Your task to perform on an android device: turn on bluetooth scan Image 0: 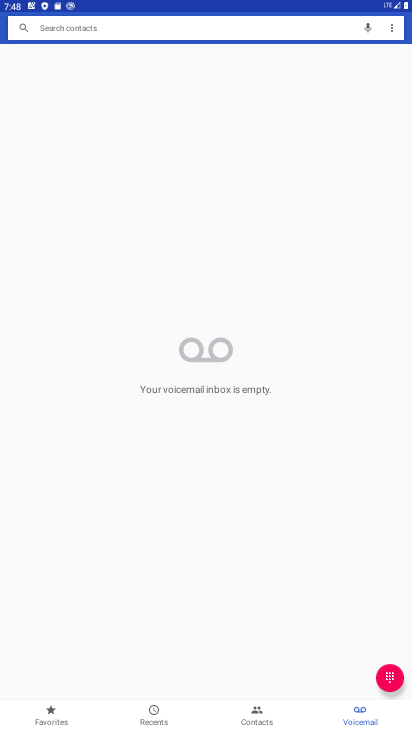
Step 0: press home button
Your task to perform on an android device: turn on bluetooth scan Image 1: 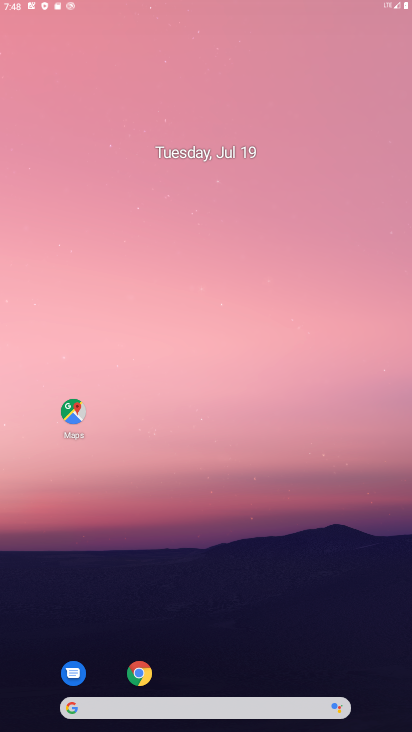
Step 1: drag from (394, 681) to (286, 61)
Your task to perform on an android device: turn on bluetooth scan Image 2: 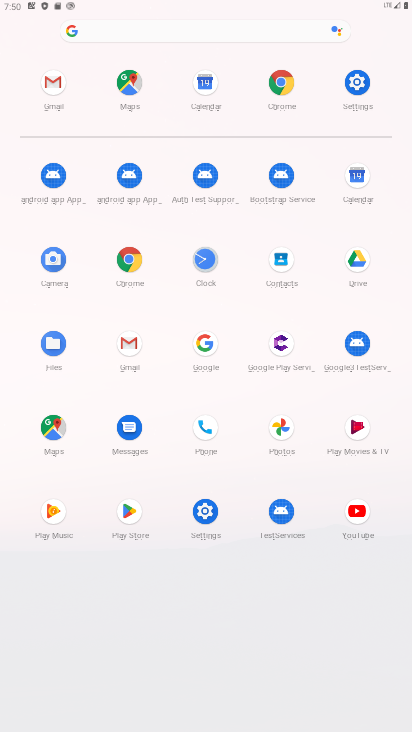
Step 2: click (203, 518)
Your task to perform on an android device: turn on bluetooth scan Image 3: 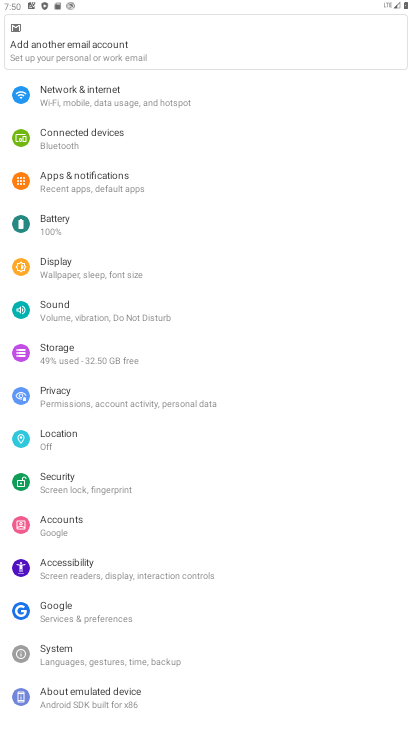
Step 3: click (68, 439)
Your task to perform on an android device: turn on bluetooth scan Image 4: 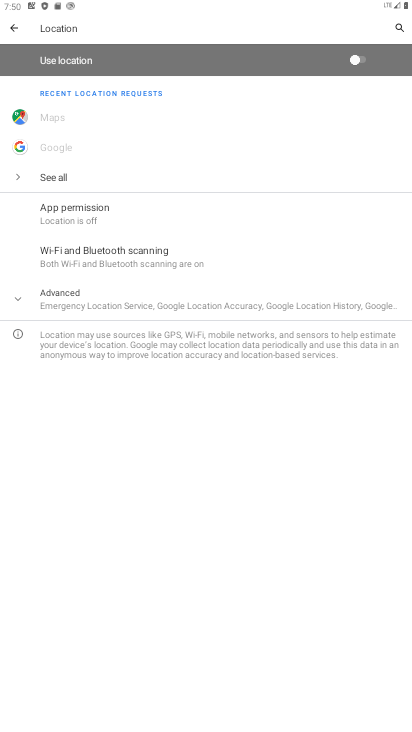
Step 4: click (136, 252)
Your task to perform on an android device: turn on bluetooth scan Image 5: 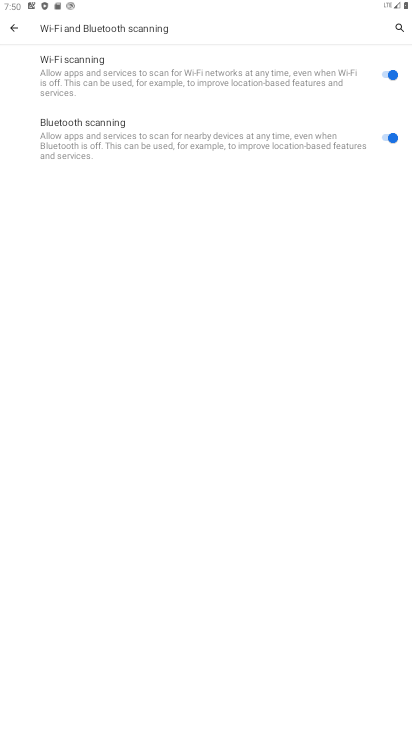
Step 5: task complete